Your task to perform on an android device: toggle javascript in the chrome app Image 0: 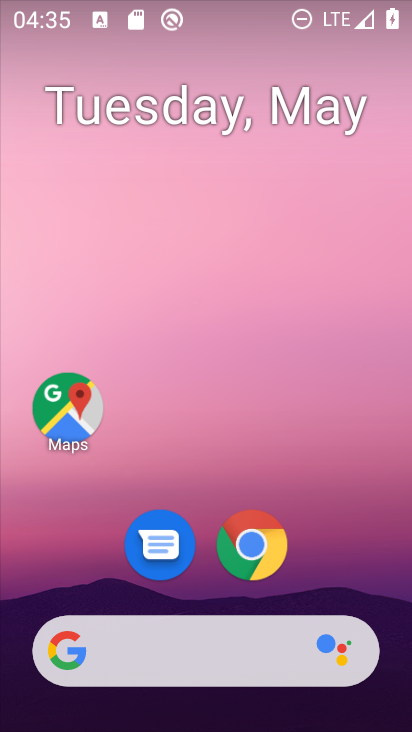
Step 0: click (243, 542)
Your task to perform on an android device: toggle javascript in the chrome app Image 1: 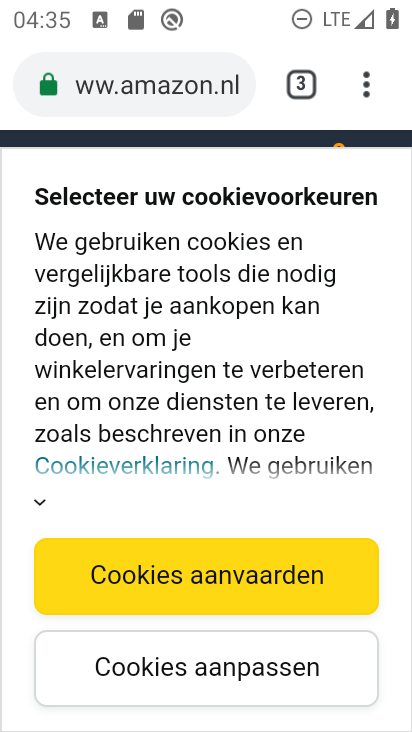
Step 1: click (364, 87)
Your task to perform on an android device: toggle javascript in the chrome app Image 2: 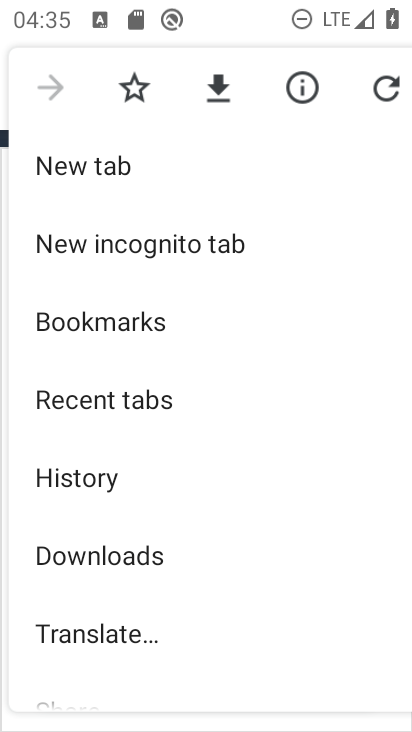
Step 2: drag from (185, 615) to (193, 233)
Your task to perform on an android device: toggle javascript in the chrome app Image 3: 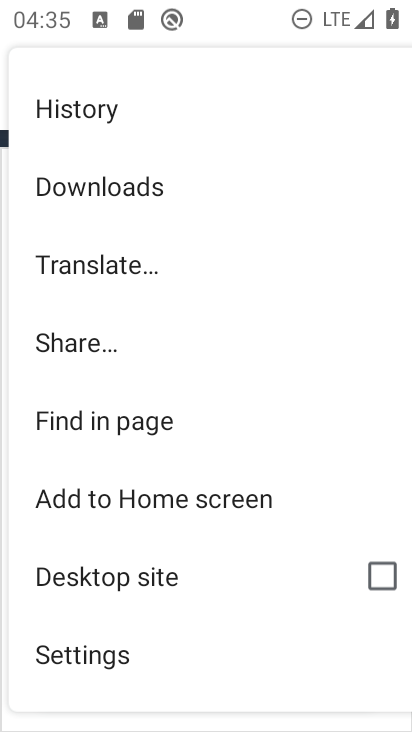
Step 3: click (90, 662)
Your task to perform on an android device: toggle javascript in the chrome app Image 4: 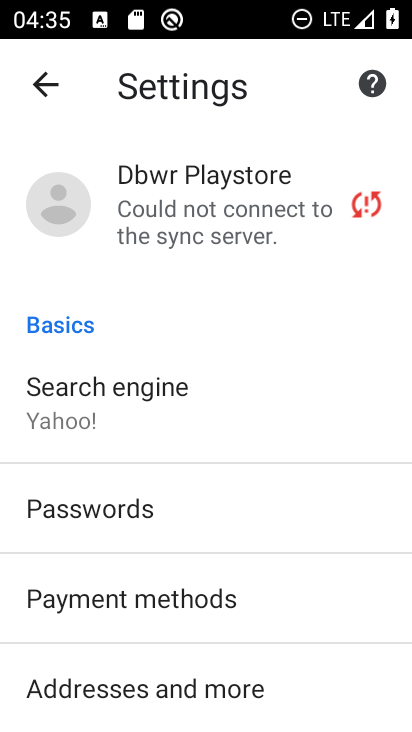
Step 4: drag from (287, 643) to (228, 241)
Your task to perform on an android device: toggle javascript in the chrome app Image 5: 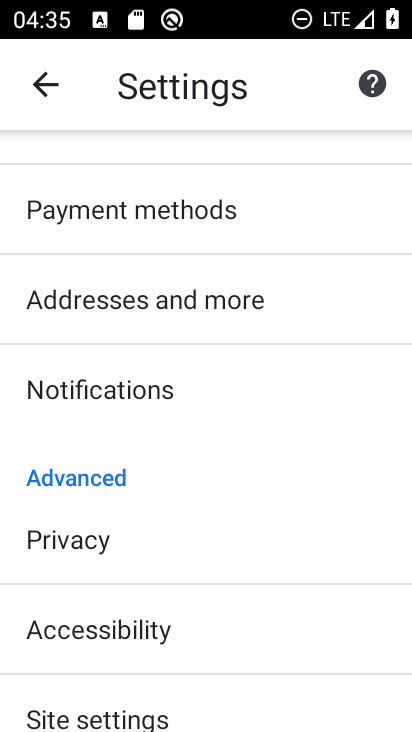
Step 5: click (116, 704)
Your task to perform on an android device: toggle javascript in the chrome app Image 6: 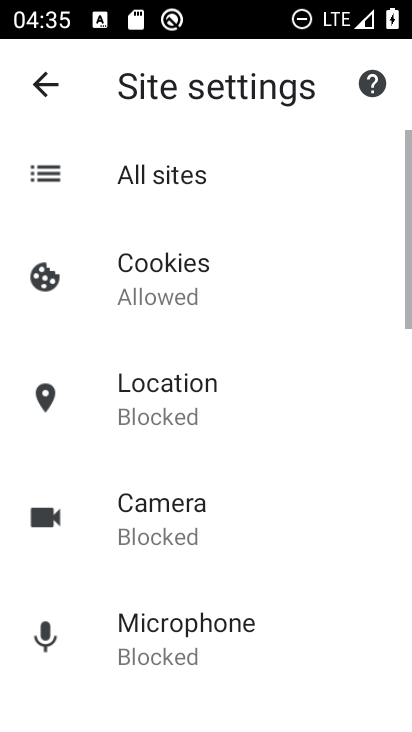
Step 6: drag from (301, 683) to (282, 184)
Your task to perform on an android device: toggle javascript in the chrome app Image 7: 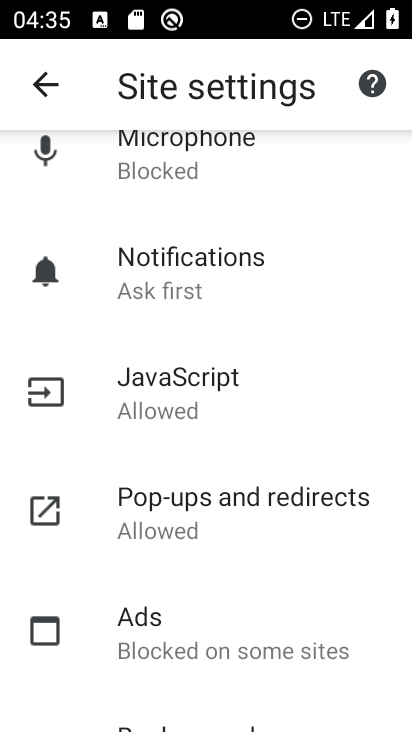
Step 7: click (154, 390)
Your task to perform on an android device: toggle javascript in the chrome app Image 8: 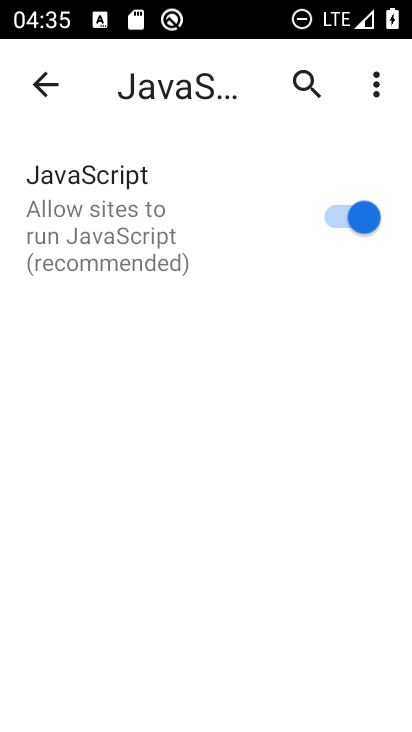
Step 8: click (342, 218)
Your task to perform on an android device: toggle javascript in the chrome app Image 9: 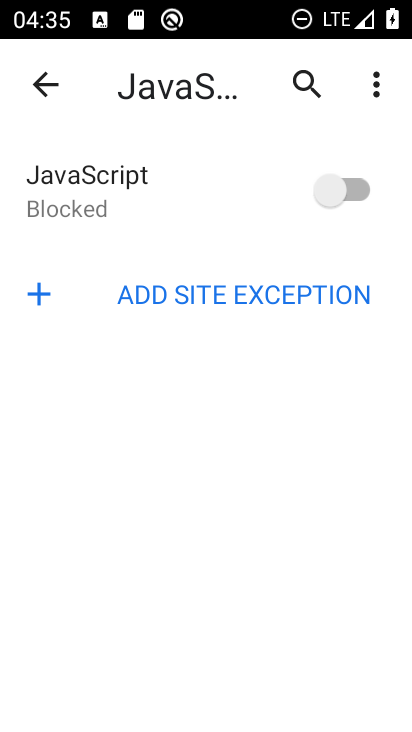
Step 9: task complete